Your task to perform on an android device: Open Youtube and go to the subscriptions tab Image 0: 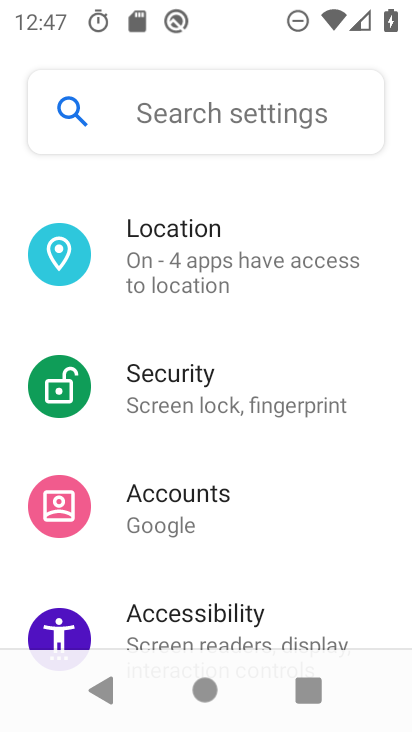
Step 0: press back button
Your task to perform on an android device: Open Youtube and go to the subscriptions tab Image 1: 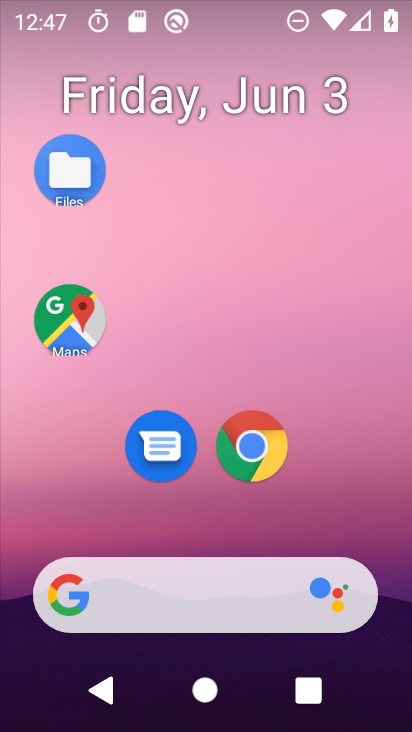
Step 1: drag from (243, 652) to (155, 253)
Your task to perform on an android device: Open Youtube and go to the subscriptions tab Image 2: 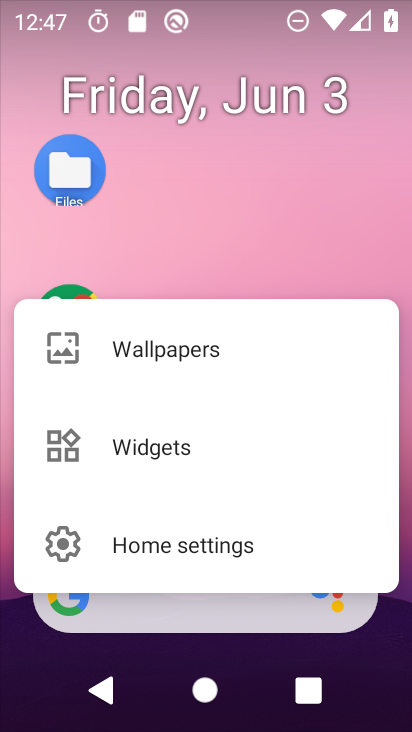
Step 2: drag from (212, 447) to (149, 118)
Your task to perform on an android device: Open Youtube and go to the subscriptions tab Image 3: 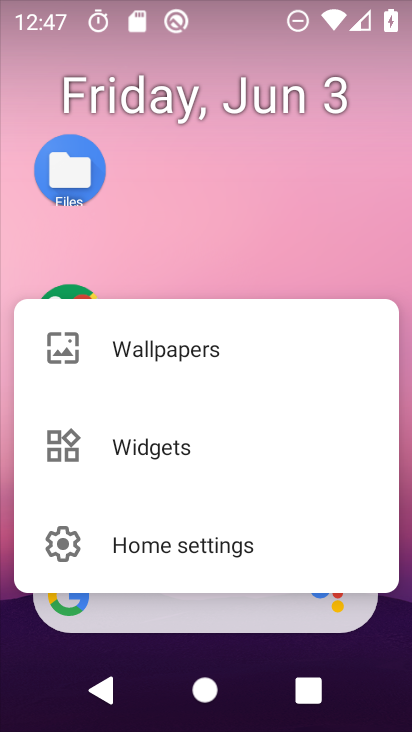
Step 3: click (219, 220)
Your task to perform on an android device: Open Youtube and go to the subscriptions tab Image 4: 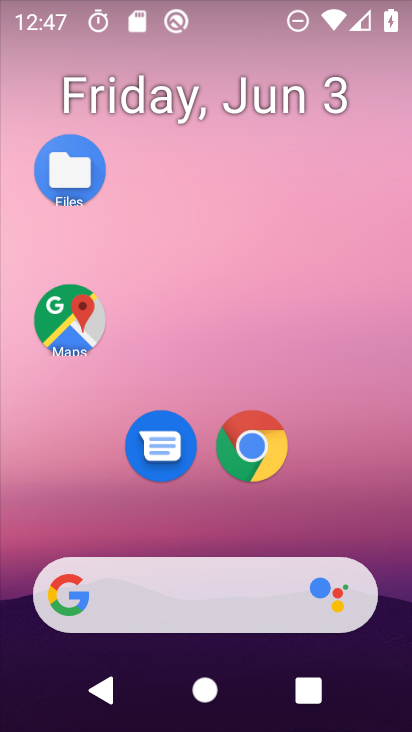
Step 4: drag from (254, 634) to (194, 243)
Your task to perform on an android device: Open Youtube and go to the subscriptions tab Image 5: 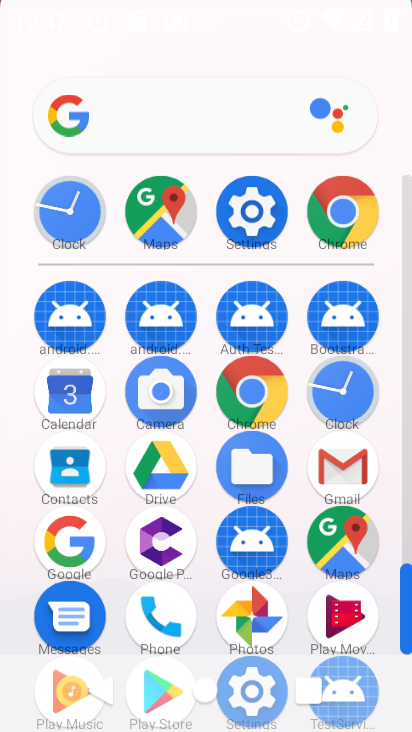
Step 5: drag from (224, 595) to (144, 149)
Your task to perform on an android device: Open Youtube and go to the subscriptions tab Image 6: 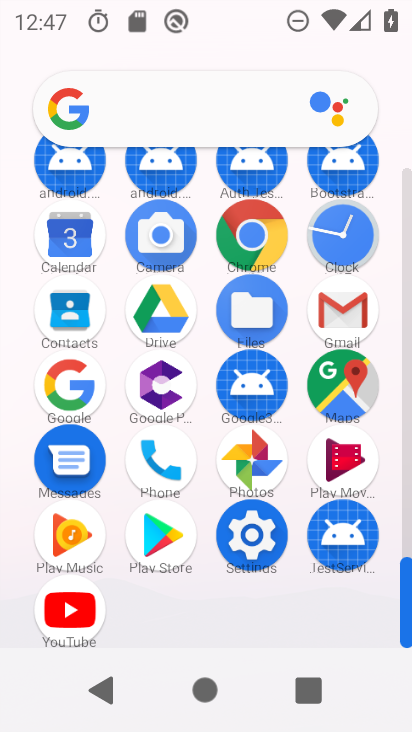
Step 6: click (77, 600)
Your task to perform on an android device: Open Youtube and go to the subscriptions tab Image 7: 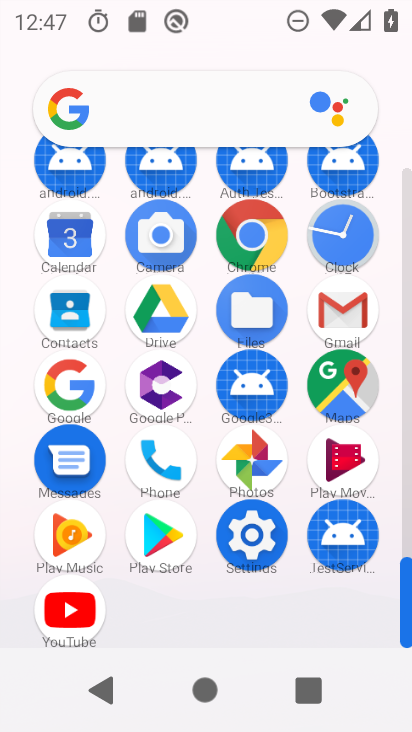
Step 7: click (77, 600)
Your task to perform on an android device: Open Youtube and go to the subscriptions tab Image 8: 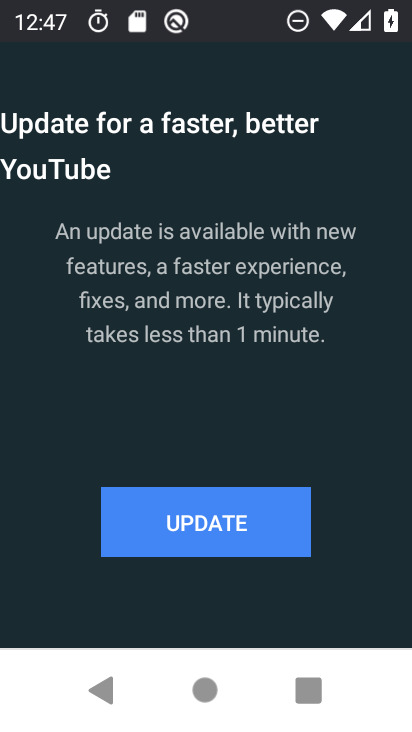
Step 8: click (216, 516)
Your task to perform on an android device: Open Youtube and go to the subscriptions tab Image 9: 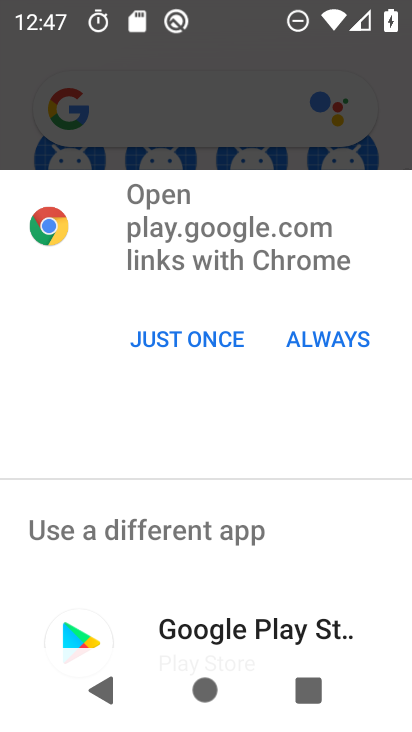
Step 9: click (221, 628)
Your task to perform on an android device: Open Youtube and go to the subscriptions tab Image 10: 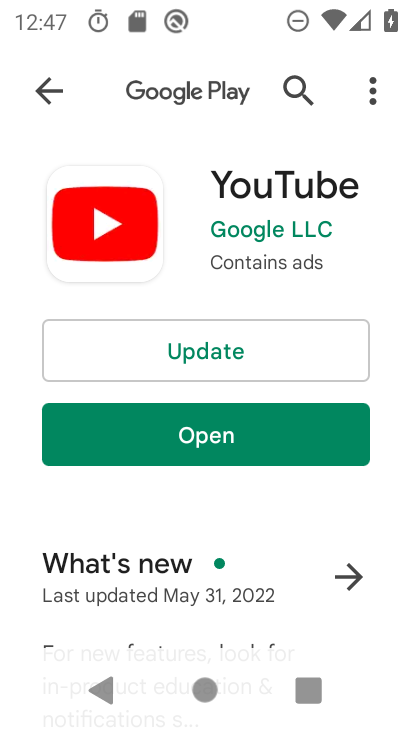
Step 10: click (208, 350)
Your task to perform on an android device: Open Youtube and go to the subscriptions tab Image 11: 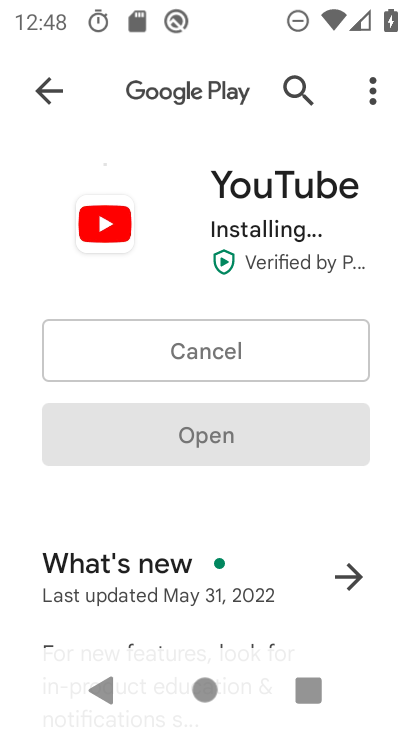
Step 11: click (202, 440)
Your task to perform on an android device: Open Youtube and go to the subscriptions tab Image 12: 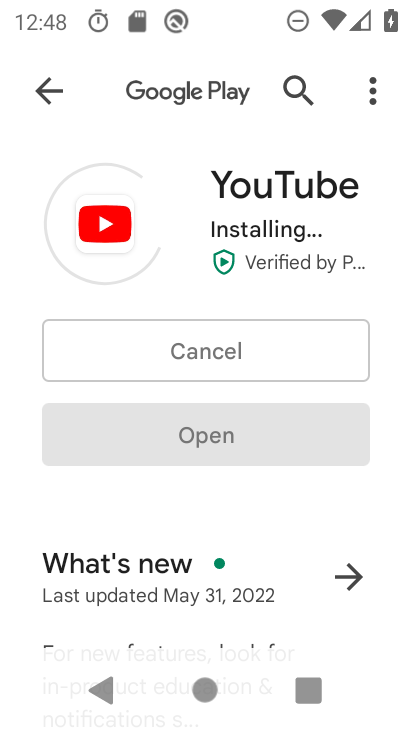
Step 12: click (203, 440)
Your task to perform on an android device: Open Youtube and go to the subscriptions tab Image 13: 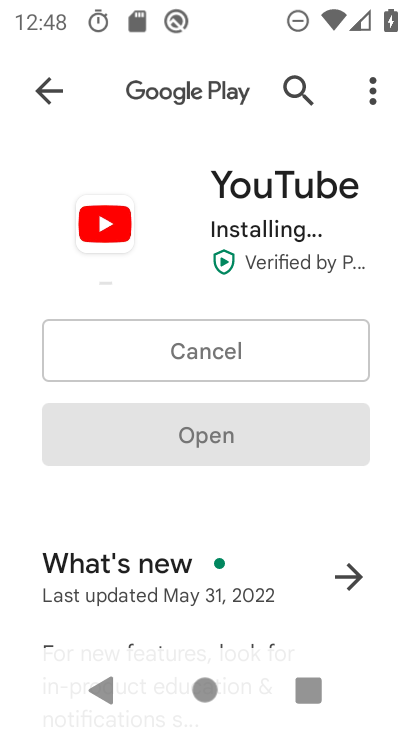
Step 13: click (204, 439)
Your task to perform on an android device: Open Youtube and go to the subscriptions tab Image 14: 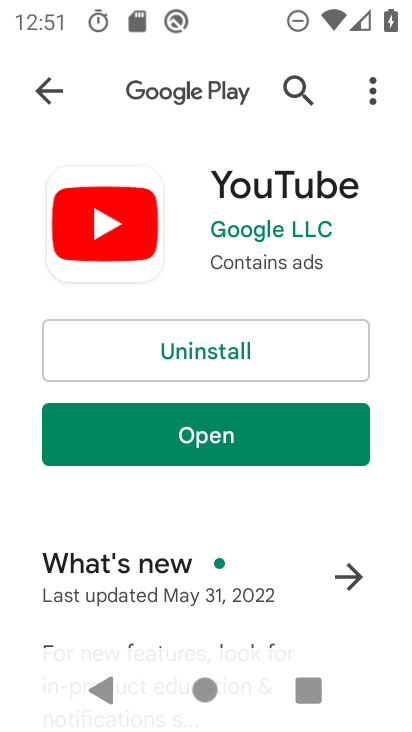
Step 14: click (189, 422)
Your task to perform on an android device: Open Youtube and go to the subscriptions tab Image 15: 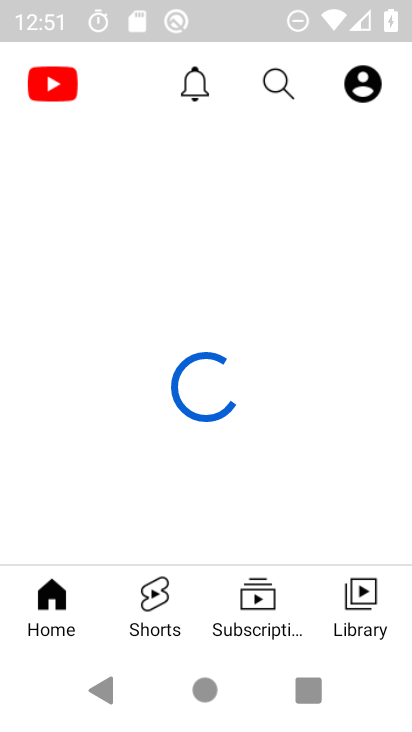
Step 15: click (261, 603)
Your task to perform on an android device: Open Youtube and go to the subscriptions tab Image 16: 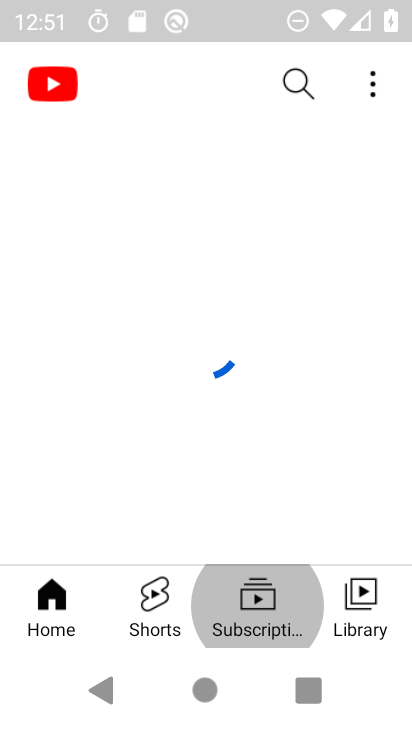
Step 16: click (259, 602)
Your task to perform on an android device: Open Youtube and go to the subscriptions tab Image 17: 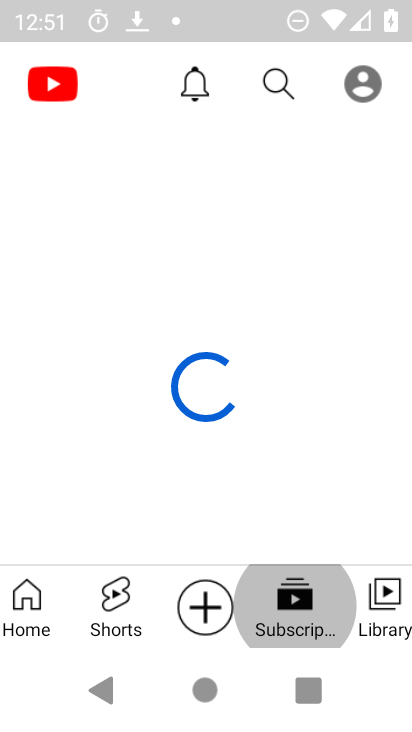
Step 17: click (259, 602)
Your task to perform on an android device: Open Youtube and go to the subscriptions tab Image 18: 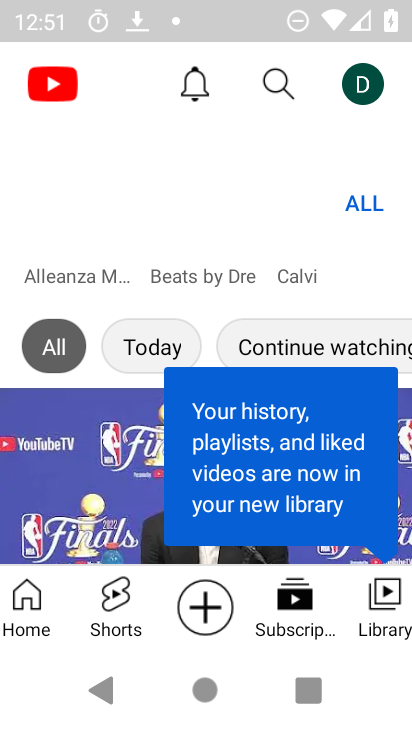
Step 18: task complete